Your task to perform on an android device: Search for panasonic triple a on walmart, select the first entry, and add it to the cart. Image 0: 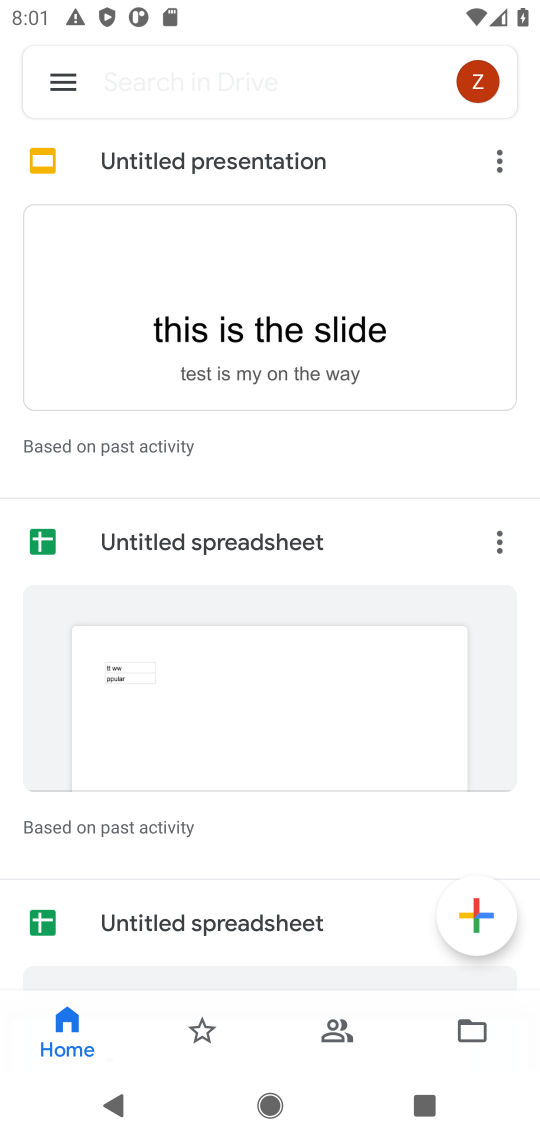
Step 0: press home button
Your task to perform on an android device: Search for panasonic triple a on walmart, select the first entry, and add it to the cart. Image 1: 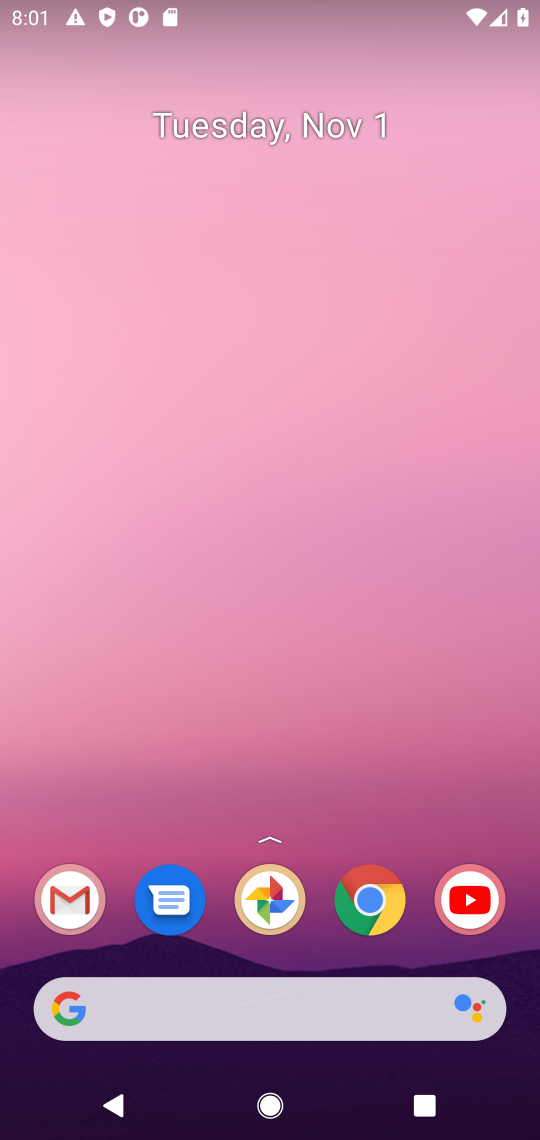
Step 1: drag from (324, 941) to (333, 139)
Your task to perform on an android device: Search for panasonic triple a on walmart, select the first entry, and add it to the cart. Image 2: 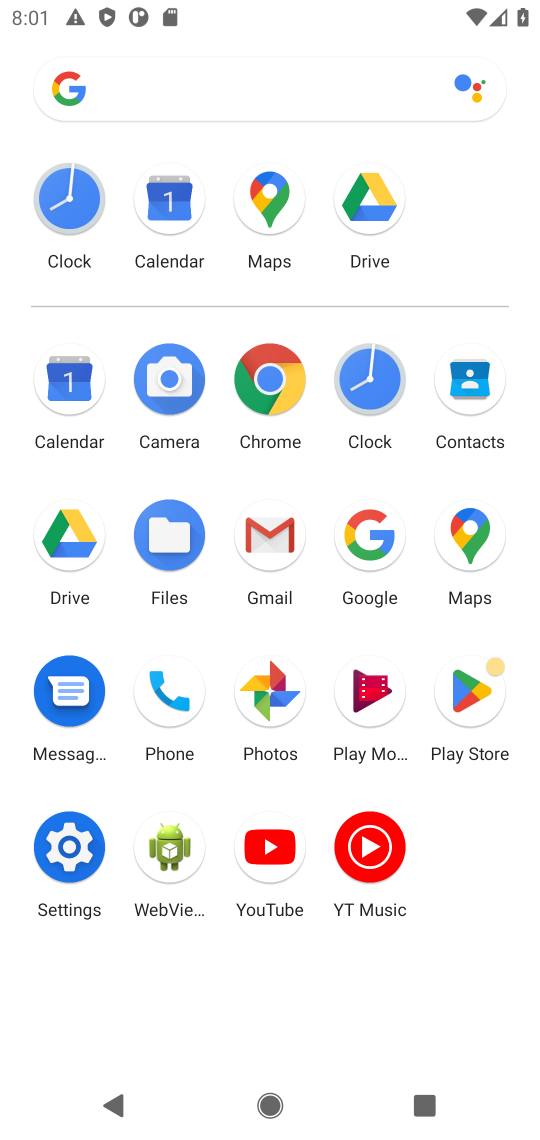
Step 2: click (273, 379)
Your task to perform on an android device: Search for panasonic triple a on walmart, select the first entry, and add it to the cart. Image 3: 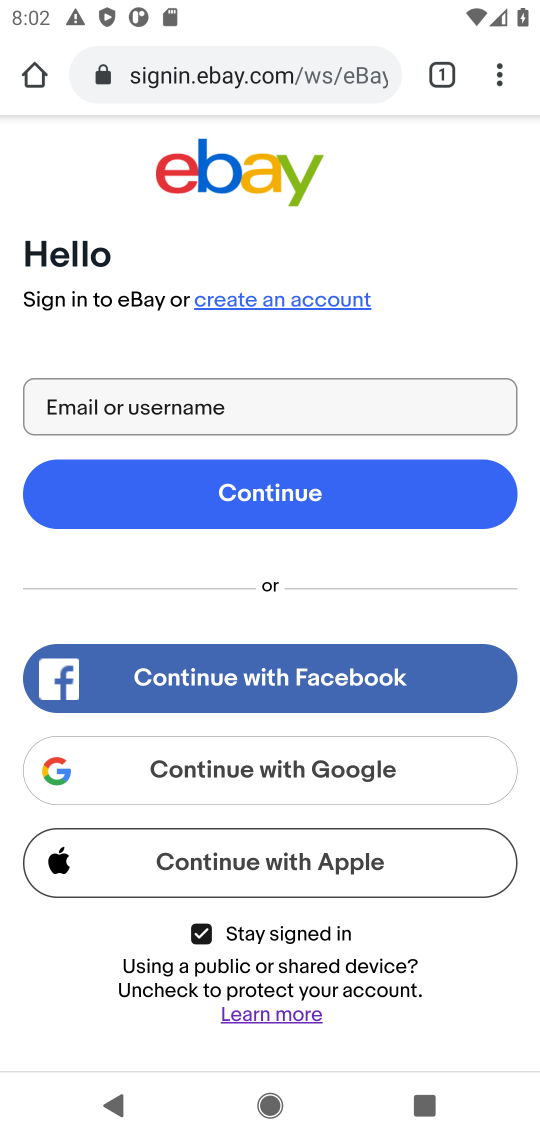
Step 3: click (320, 81)
Your task to perform on an android device: Search for panasonic triple a on walmart, select the first entry, and add it to the cart. Image 4: 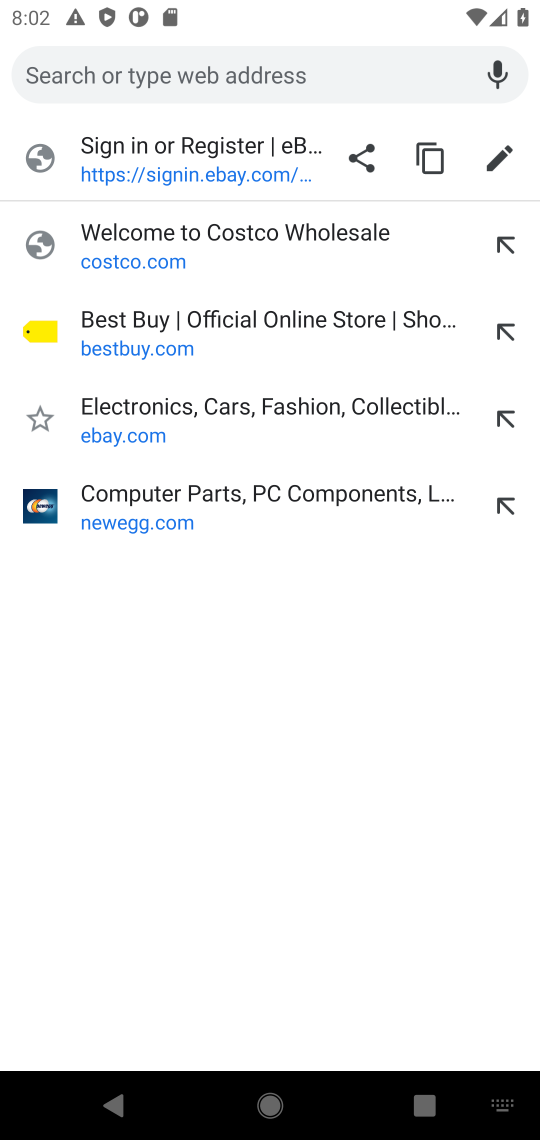
Step 4: type "walmart.com"
Your task to perform on an android device: Search for panasonic triple a on walmart, select the first entry, and add it to the cart. Image 5: 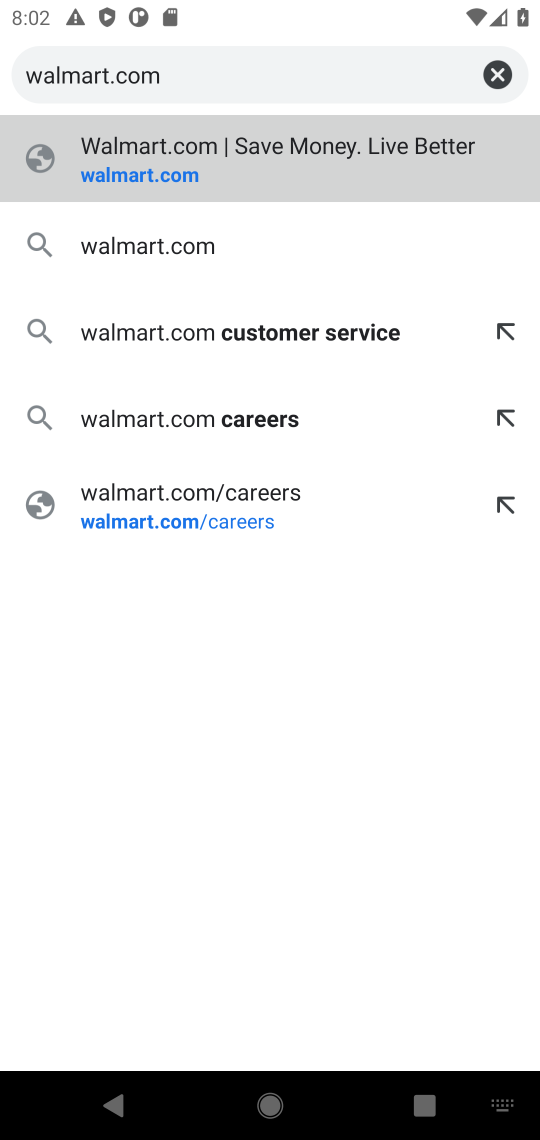
Step 5: press enter
Your task to perform on an android device: Search for panasonic triple a on walmart, select the first entry, and add it to the cart. Image 6: 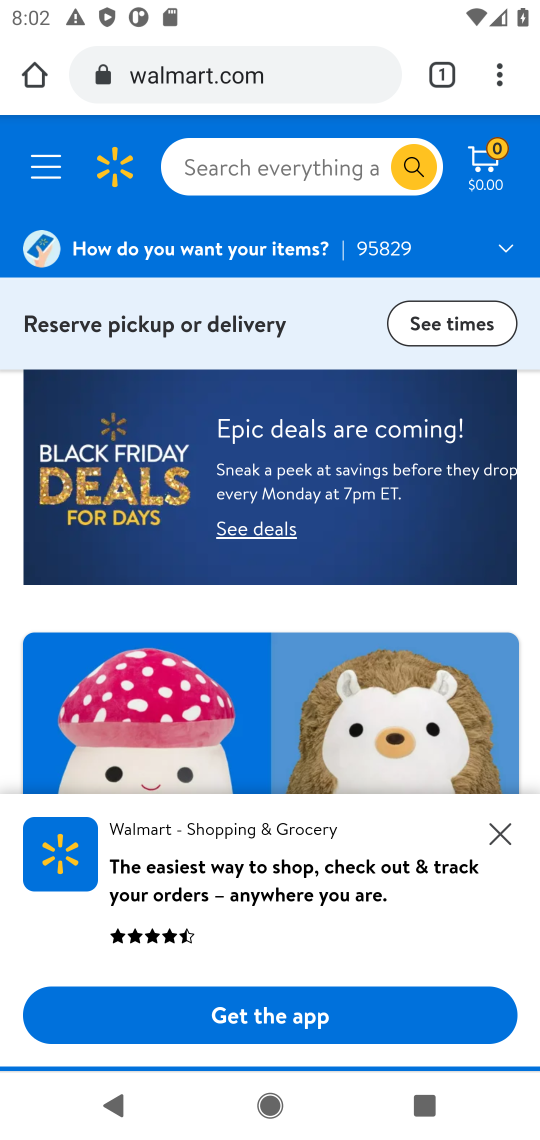
Step 6: click (332, 158)
Your task to perform on an android device: Search for panasonic triple a on walmart, select the first entry, and add it to the cart. Image 7: 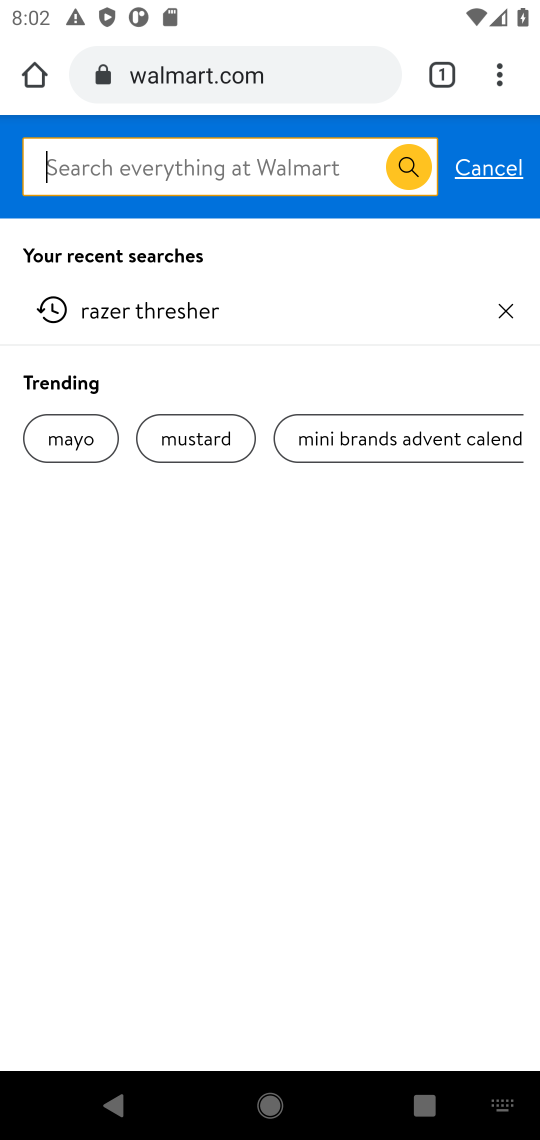
Step 7: type "panasonic triple a"
Your task to perform on an android device: Search for panasonic triple a on walmart, select the first entry, and add it to the cart. Image 8: 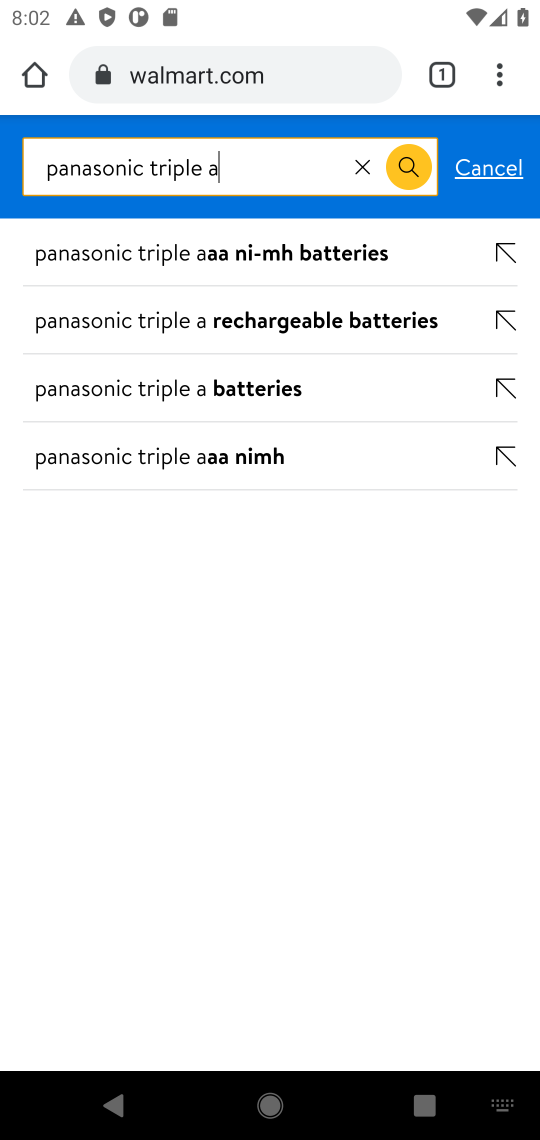
Step 8: press enter
Your task to perform on an android device: Search for panasonic triple a on walmart, select the first entry, and add it to the cart. Image 9: 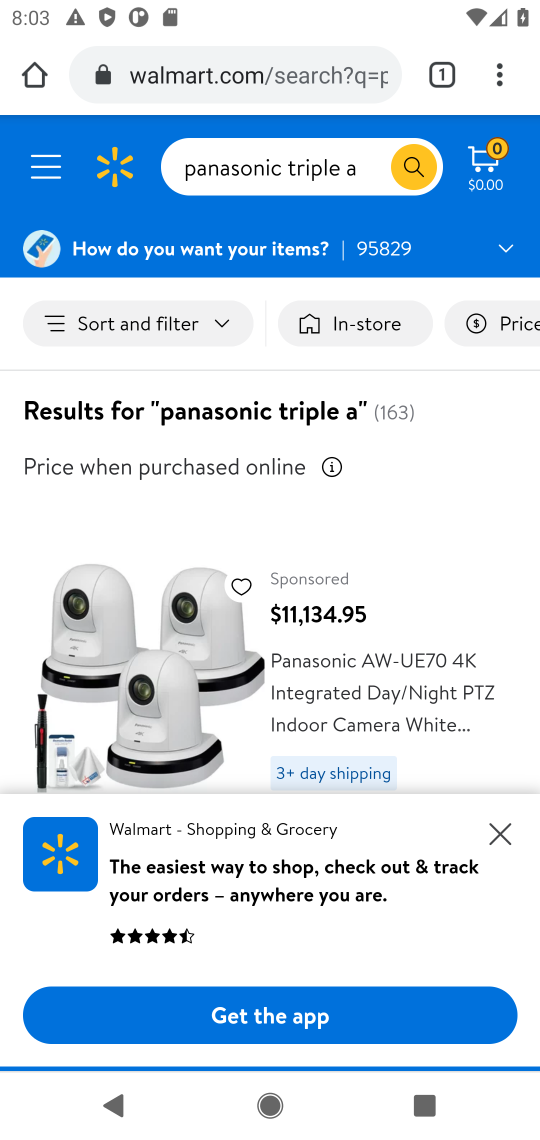
Step 9: drag from (358, 714) to (353, 410)
Your task to perform on an android device: Search for panasonic triple a on walmart, select the first entry, and add it to the cart. Image 10: 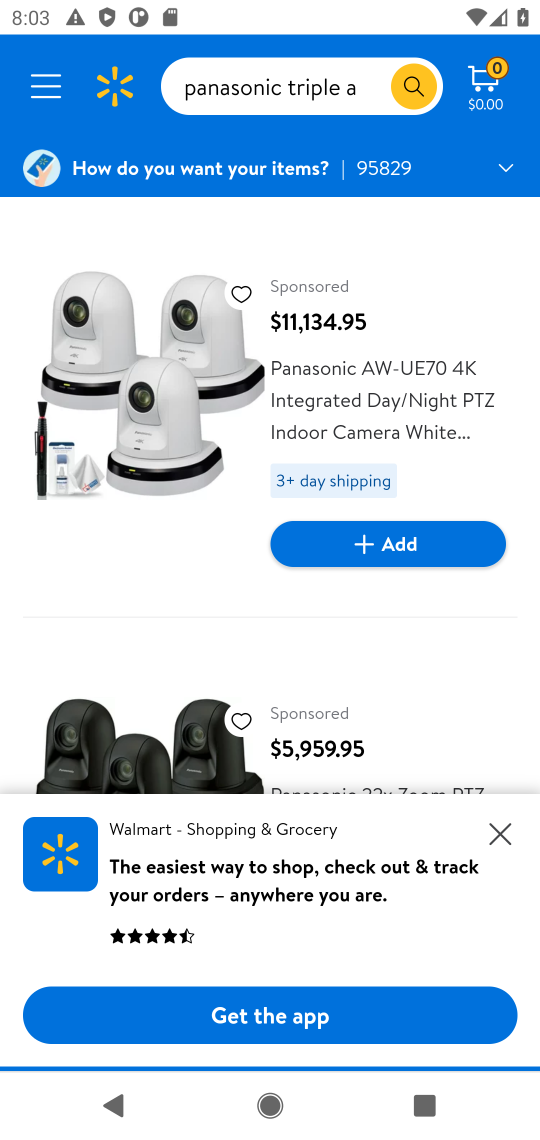
Step 10: drag from (270, 676) to (277, 48)
Your task to perform on an android device: Search for panasonic triple a on walmart, select the first entry, and add it to the cart. Image 11: 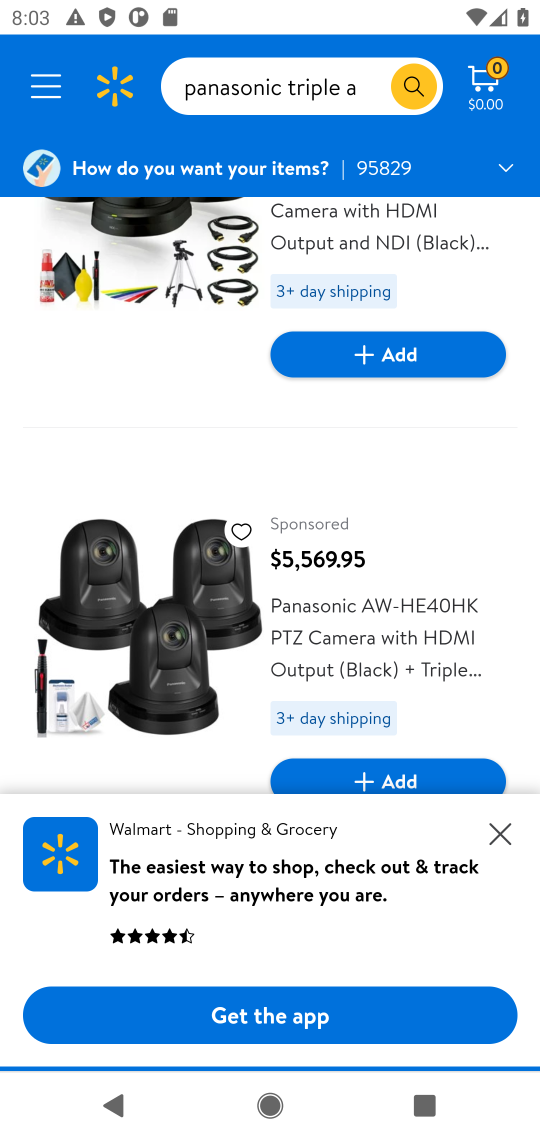
Step 11: drag from (157, 246) to (416, 309)
Your task to perform on an android device: Search for panasonic triple a on walmart, select the first entry, and add it to the cart. Image 12: 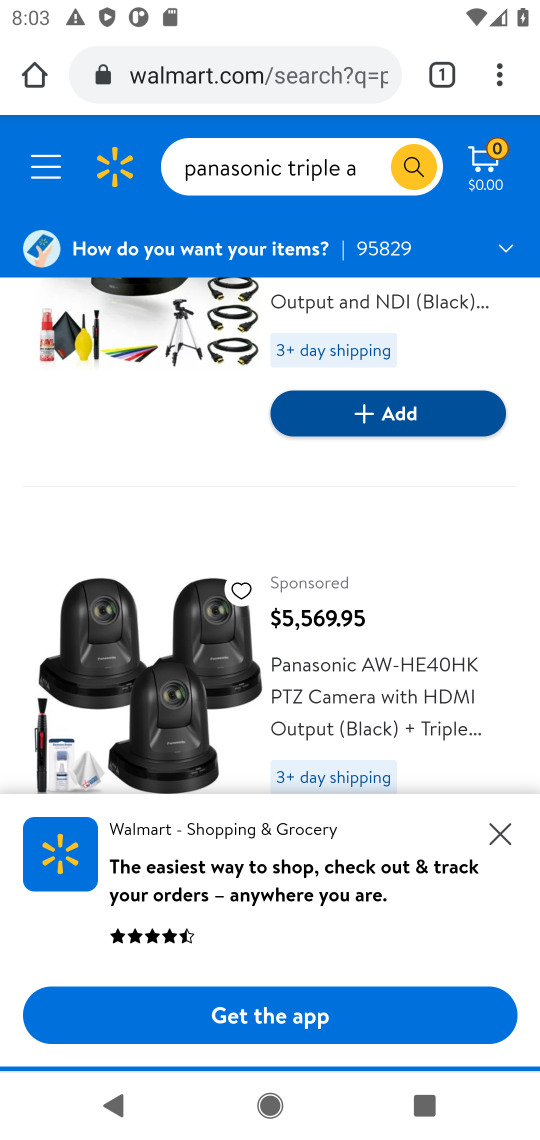
Step 12: drag from (406, 653) to (436, 254)
Your task to perform on an android device: Search for panasonic triple a on walmart, select the first entry, and add it to the cart. Image 13: 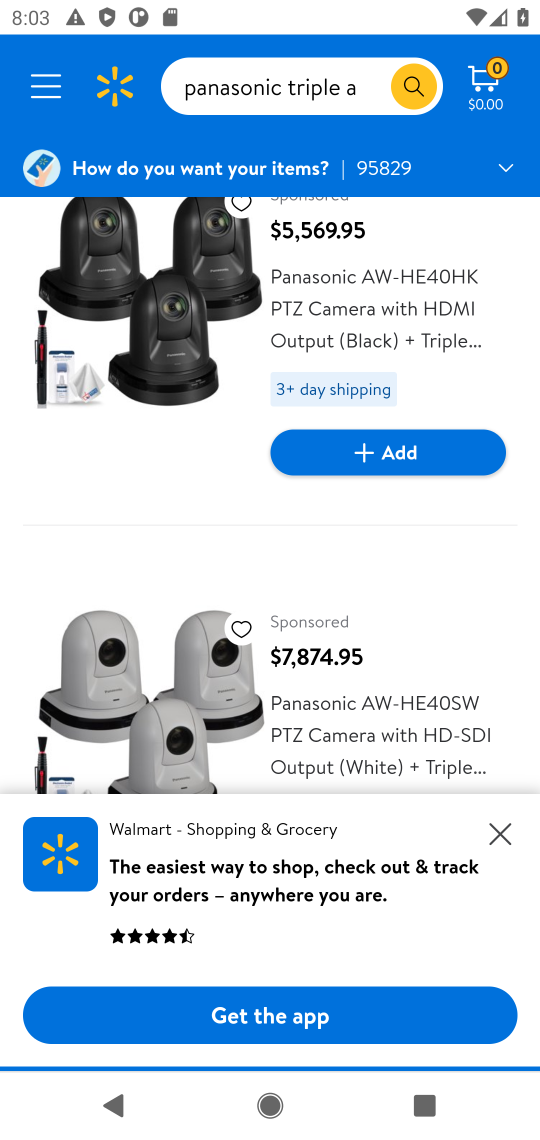
Step 13: drag from (369, 746) to (388, 350)
Your task to perform on an android device: Search for panasonic triple a on walmart, select the first entry, and add it to the cart. Image 14: 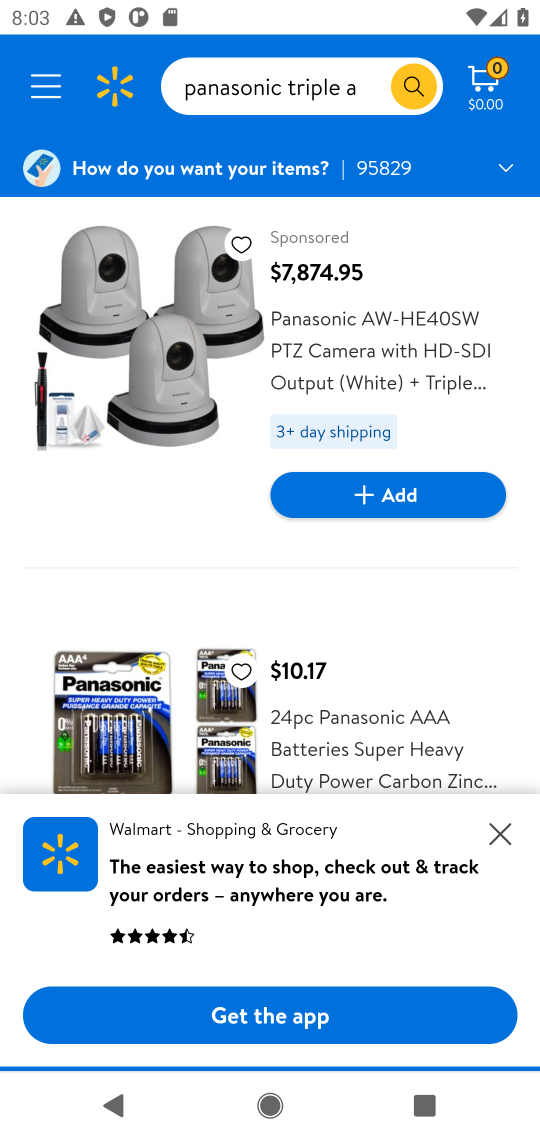
Step 14: drag from (294, 757) to (333, 515)
Your task to perform on an android device: Search for panasonic triple a on walmart, select the first entry, and add it to the cart. Image 15: 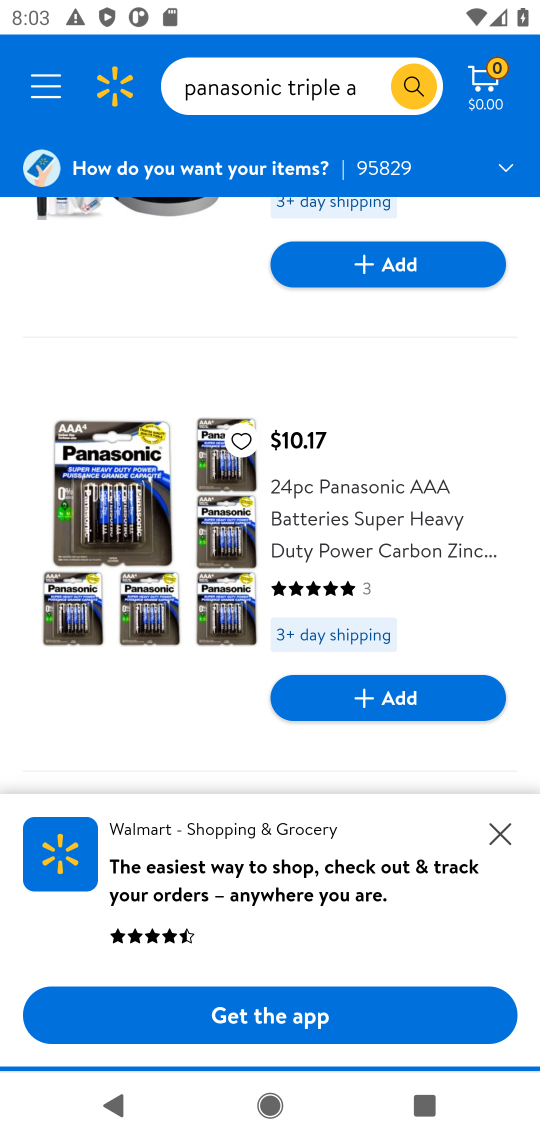
Step 15: click (398, 710)
Your task to perform on an android device: Search for panasonic triple a on walmart, select the first entry, and add it to the cart. Image 16: 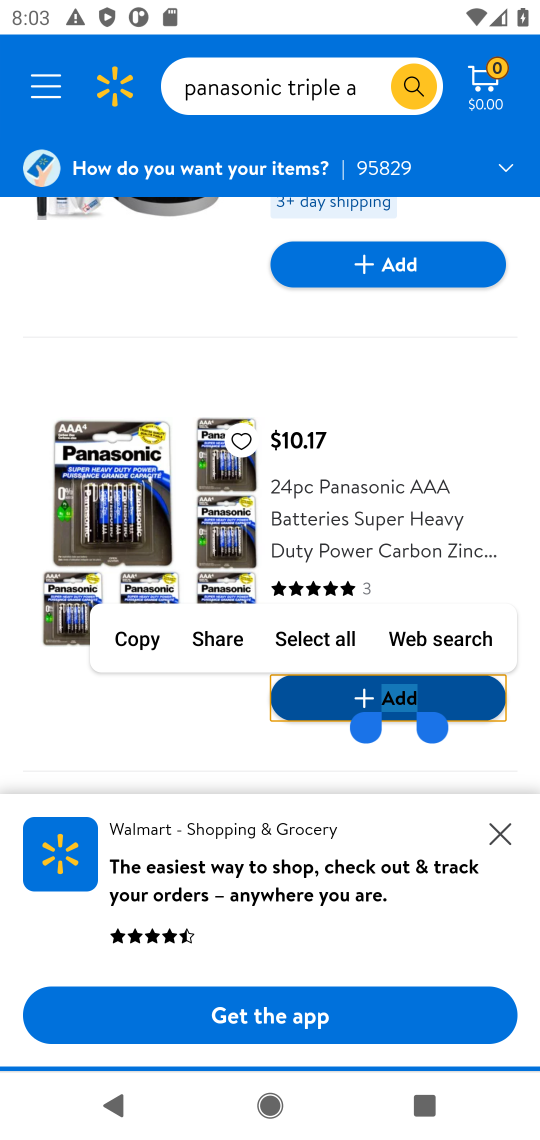
Step 16: click (404, 690)
Your task to perform on an android device: Search for panasonic triple a on walmart, select the first entry, and add it to the cart. Image 17: 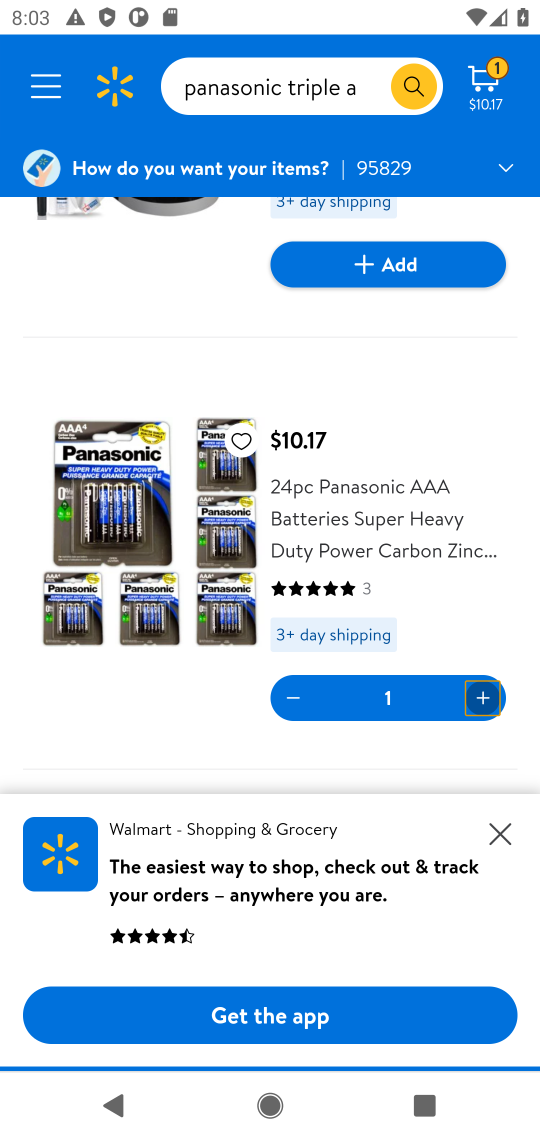
Step 17: click (215, 608)
Your task to perform on an android device: Search for panasonic triple a on walmart, select the first entry, and add it to the cart. Image 18: 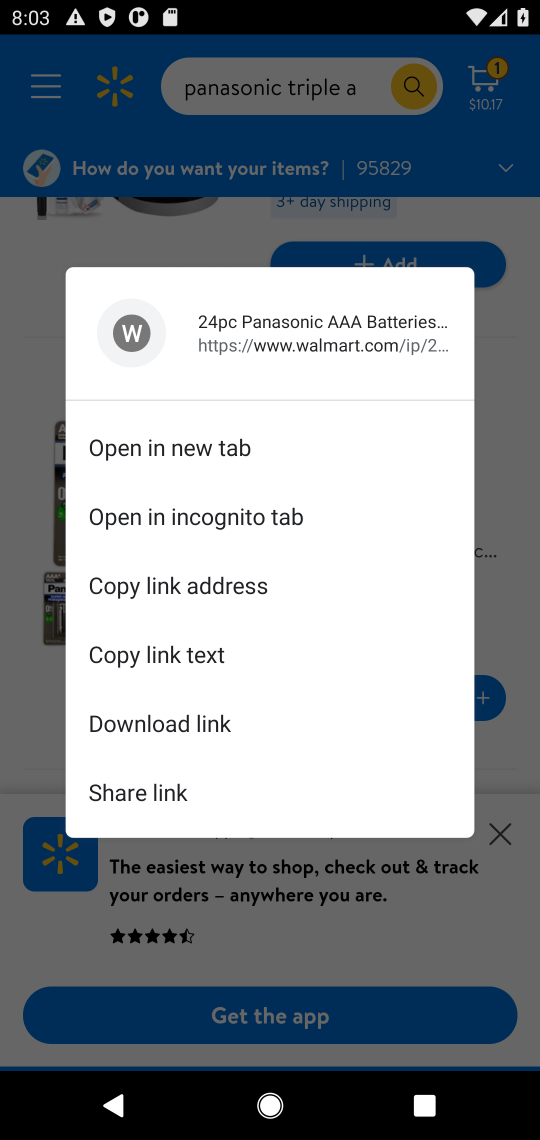
Step 18: click (50, 572)
Your task to perform on an android device: Search for panasonic triple a on walmart, select the first entry, and add it to the cart. Image 19: 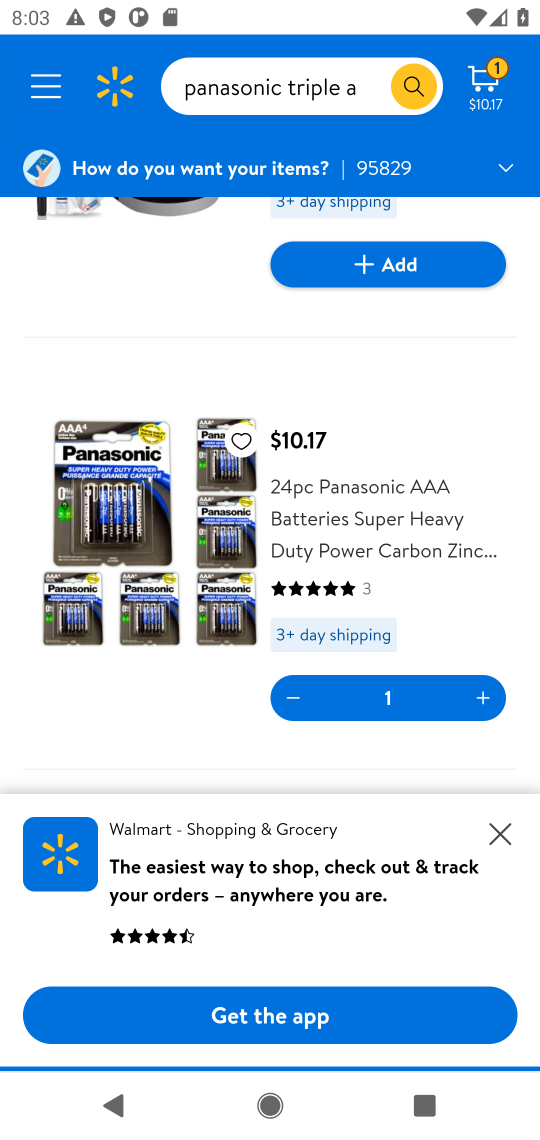
Step 19: click (375, 536)
Your task to perform on an android device: Search for panasonic triple a on walmart, select the first entry, and add it to the cart. Image 20: 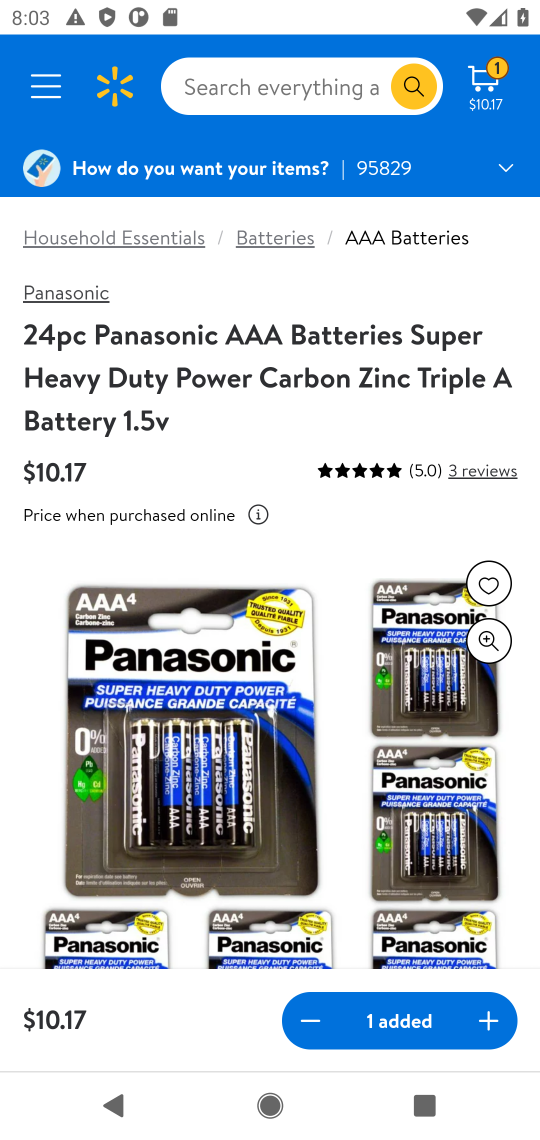
Step 20: task complete